Your task to perform on an android device: Open Google Chrome and click the shortcut for Amazon.com Image 0: 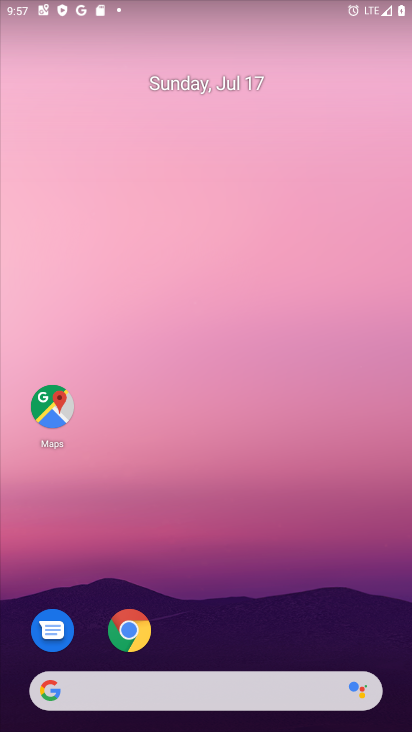
Step 0: drag from (231, 637) to (261, 179)
Your task to perform on an android device: Open Google Chrome and click the shortcut for Amazon.com Image 1: 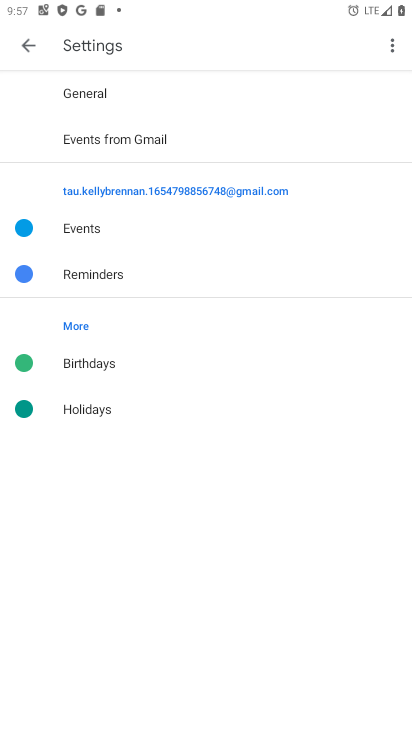
Step 1: press home button
Your task to perform on an android device: Open Google Chrome and click the shortcut for Amazon.com Image 2: 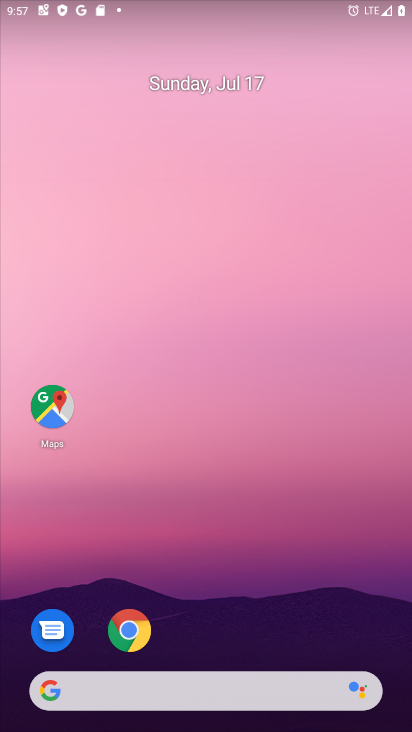
Step 2: click (126, 630)
Your task to perform on an android device: Open Google Chrome and click the shortcut for Amazon.com Image 3: 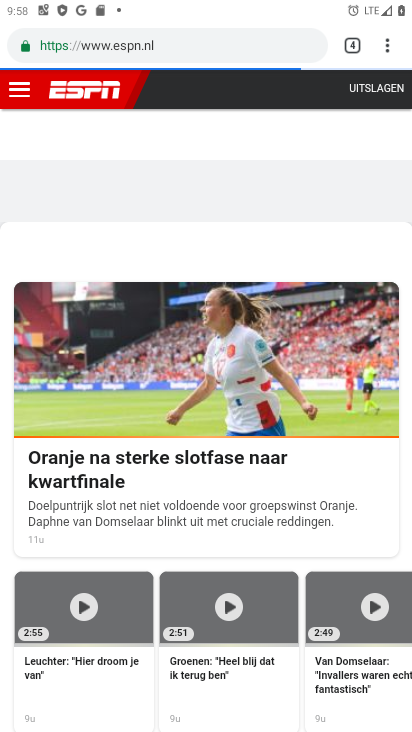
Step 3: click (353, 32)
Your task to perform on an android device: Open Google Chrome and click the shortcut for Amazon.com Image 4: 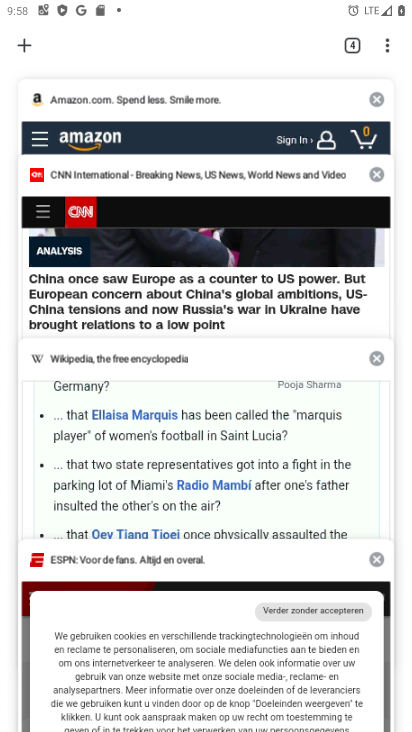
Step 4: click (116, 173)
Your task to perform on an android device: Open Google Chrome and click the shortcut for Amazon.com Image 5: 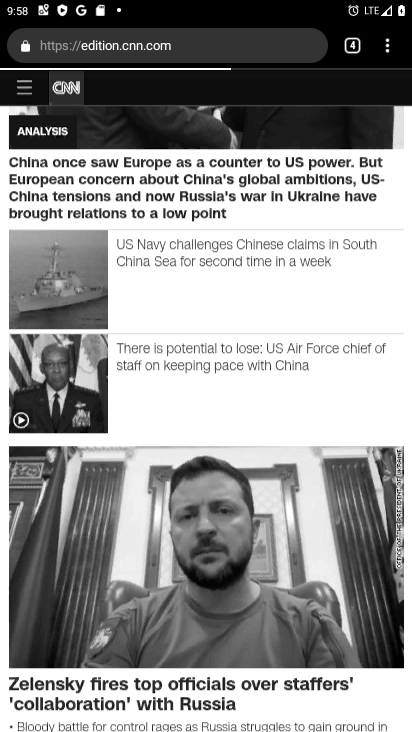
Step 5: click (350, 45)
Your task to perform on an android device: Open Google Chrome and click the shortcut for Amazon.com Image 6: 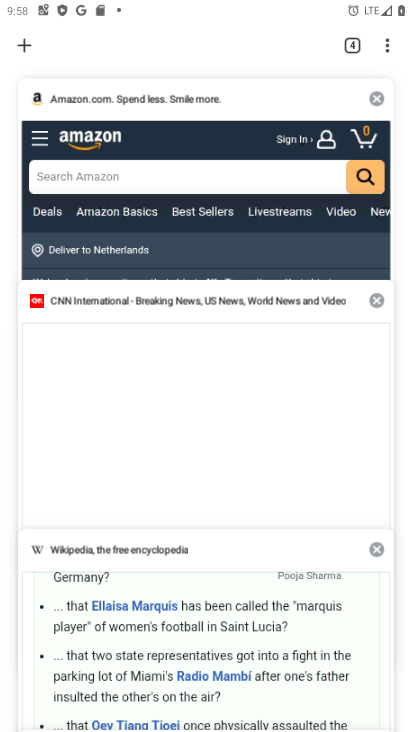
Step 6: click (99, 90)
Your task to perform on an android device: Open Google Chrome and click the shortcut for Amazon.com Image 7: 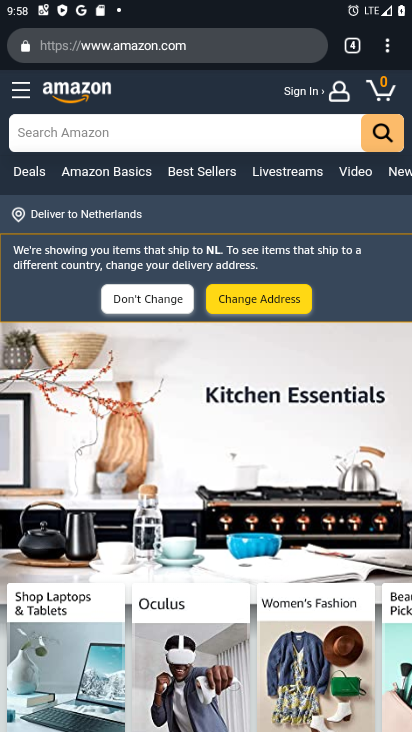
Step 7: task complete